Your task to perform on an android device: turn off priority inbox in the gmail app Image 0: 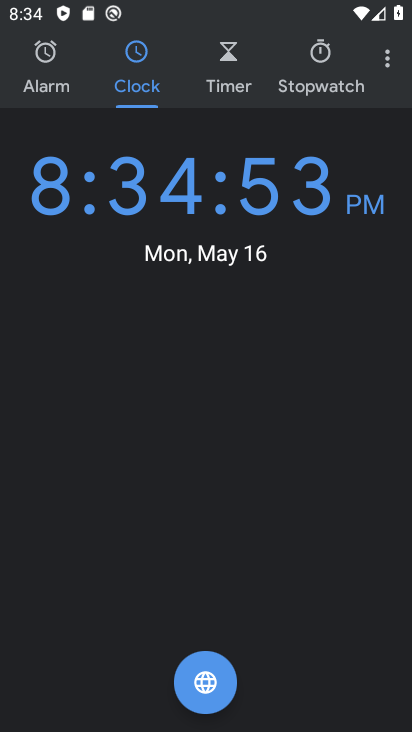
Step 0: press home button
Your task to perform on an android device: turn off priority inbox in the gmail app Image 1: 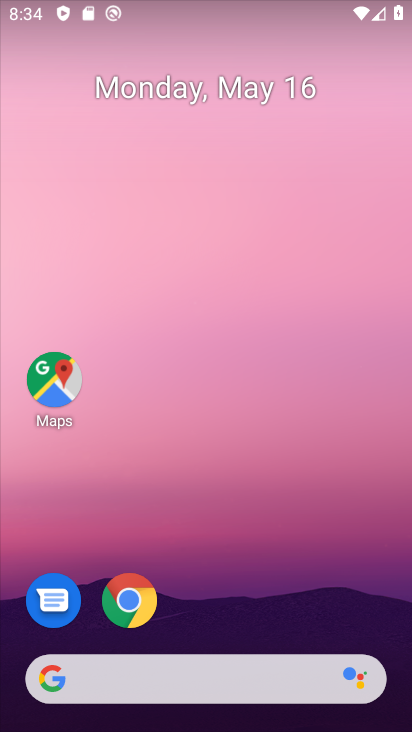
Step 1: drag from (411, 661) to (307, 94)
Your task to perform on an android device: turn off priority inbox in the gmail app Image 2: 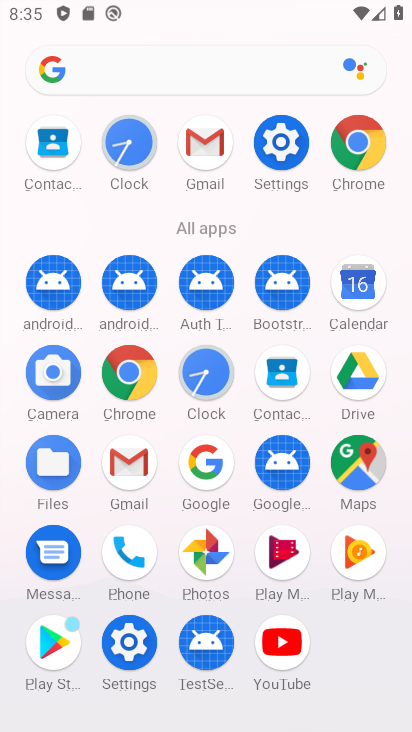
Step 2: click (131, 460)
Your task to perform on an android device: turn off priority inbox in the gmail app Image 3: 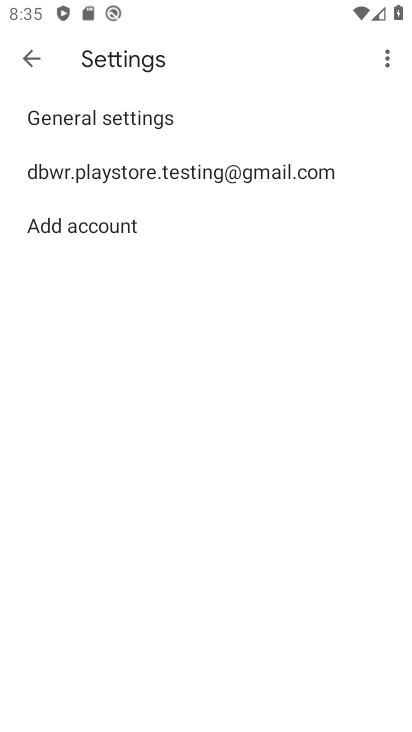
Step 3: click (152, 170)
Your task to perform on an android device: turn off priority inbox in the gmail app Image 4: 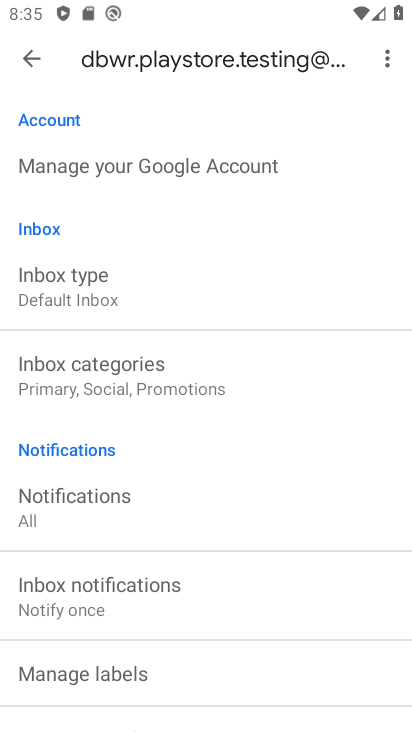
Step 4: click (51, 274)
Your task to perform on an android device: turn off priority inbox in the gmail app Image 5: 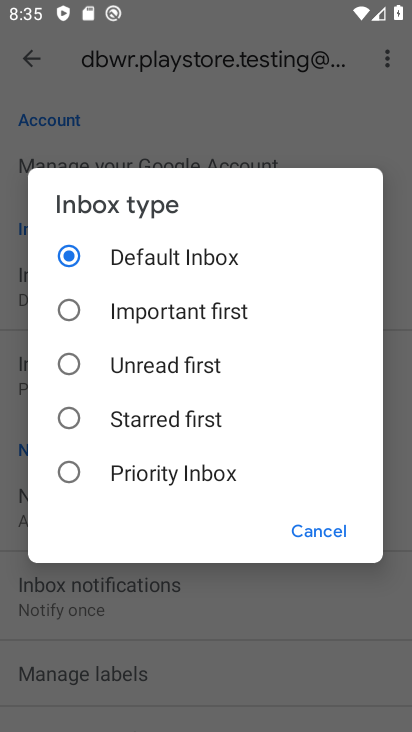
Step 5: task complete